Your task to perform on an android device: Check out the best rated electric trimmers on Lowe's Image 0: 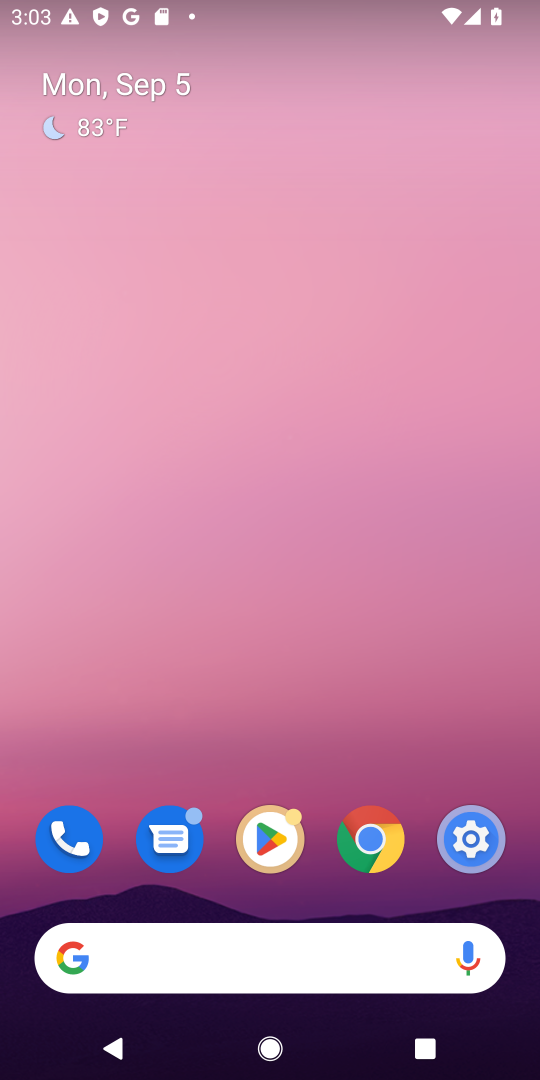
Step 0: click (340, 954)
Your task to perform on an android device: Check out the best rated electric trimmers on Lowe's Image 1: 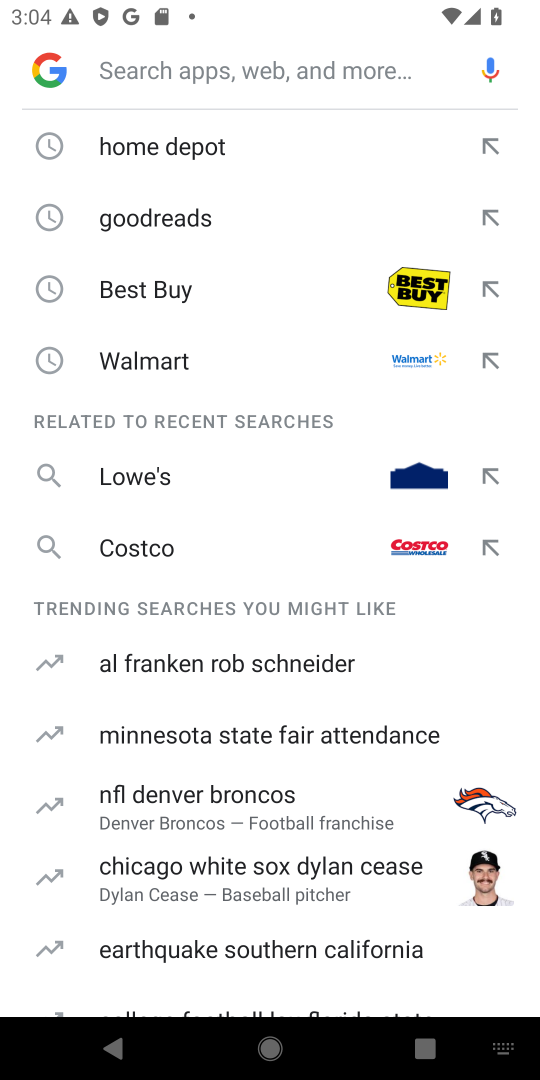
Step 1: type "loew's"
Your task to perform on an android device: Check out the best rated electric trimmers on Lowe's Image 2: 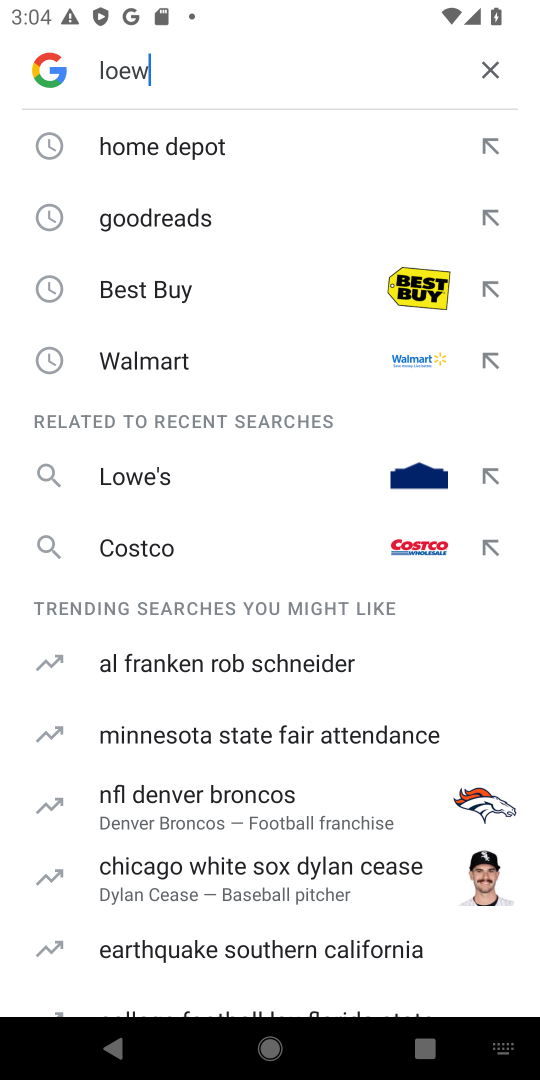
Step 2: type ""
Your task to perform on an android device: Check out the best rated electric trimmers on Lowe's Image 3: 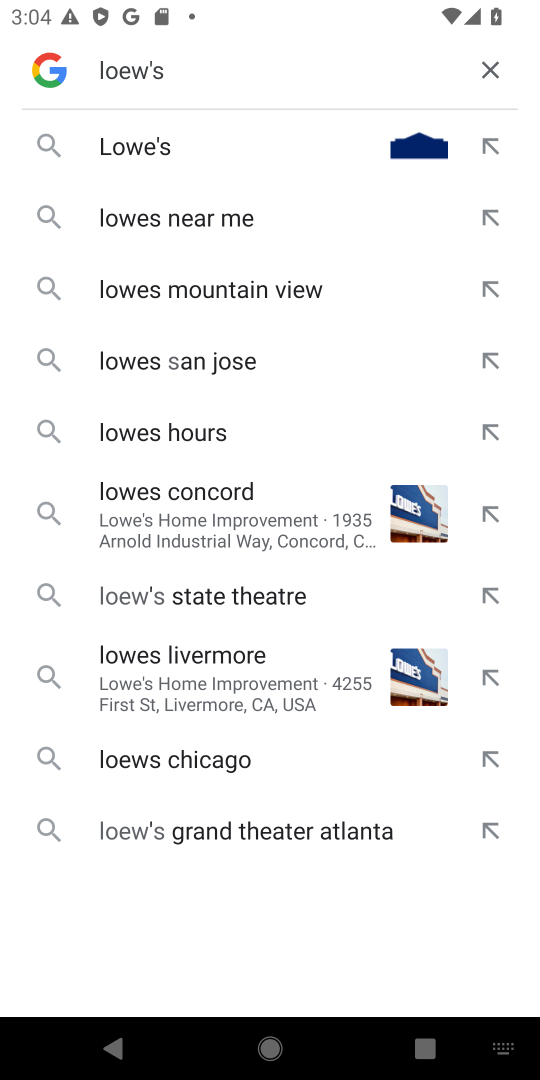
Step 3: press enter
Your task to perform on an android device: Check out the best rated electric trimmers on Lowe's Image 4: 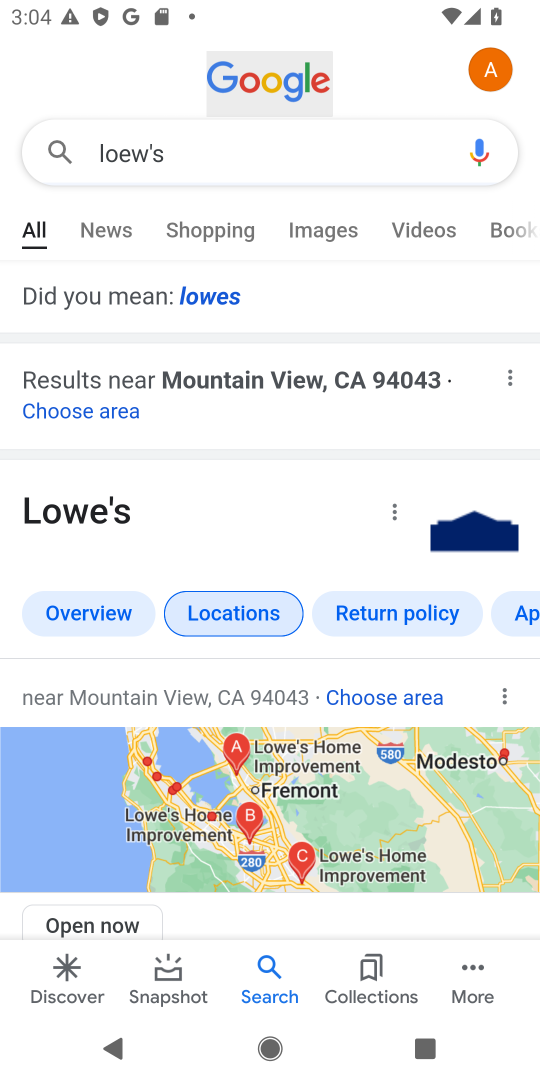
Step 4: drag from (157, 540) to (287, 121)
Your task to perform on an android device: Check out the best rated electric trimmers on Lowe's Image 5: 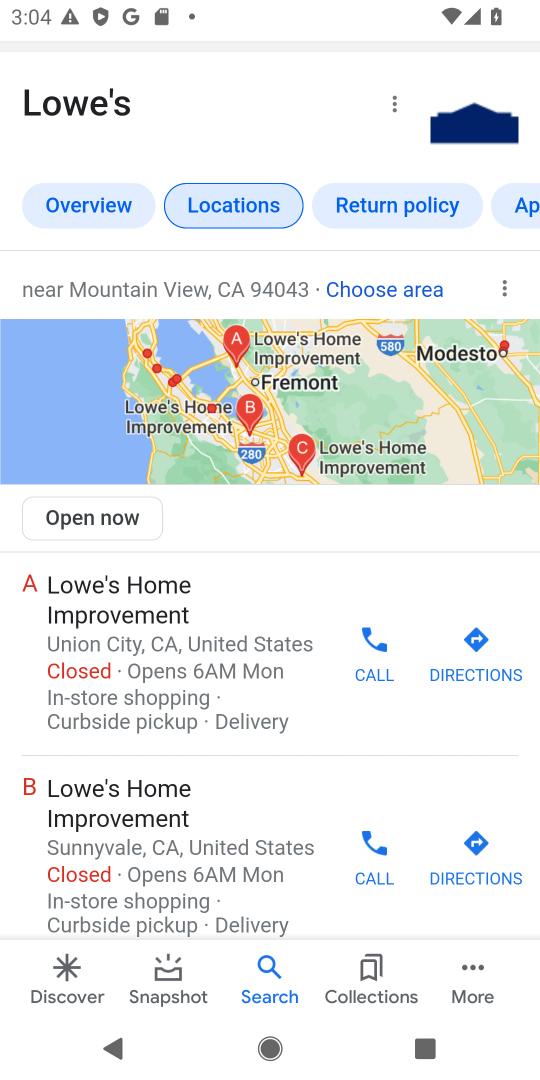
Step 5: drag from (45, 544) to (207, 55)
Your task to perform on an android device: Check out the best rated electric trimmers on Lowe's Image 6: 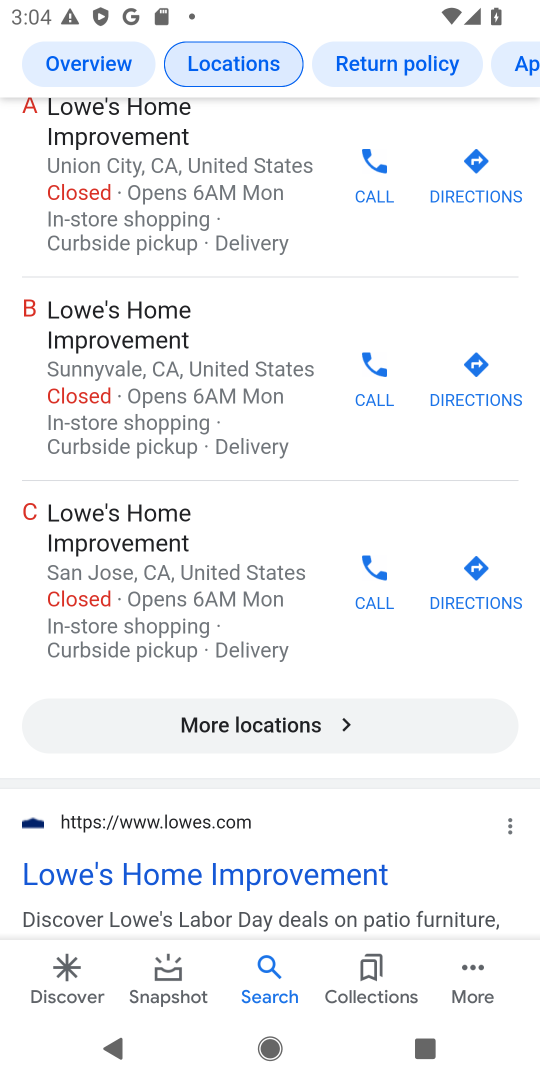
Step 6: click (160, 868)
Your task to perform on an android device: Check out the best rated electric trimmers on Lowe's Image 7: 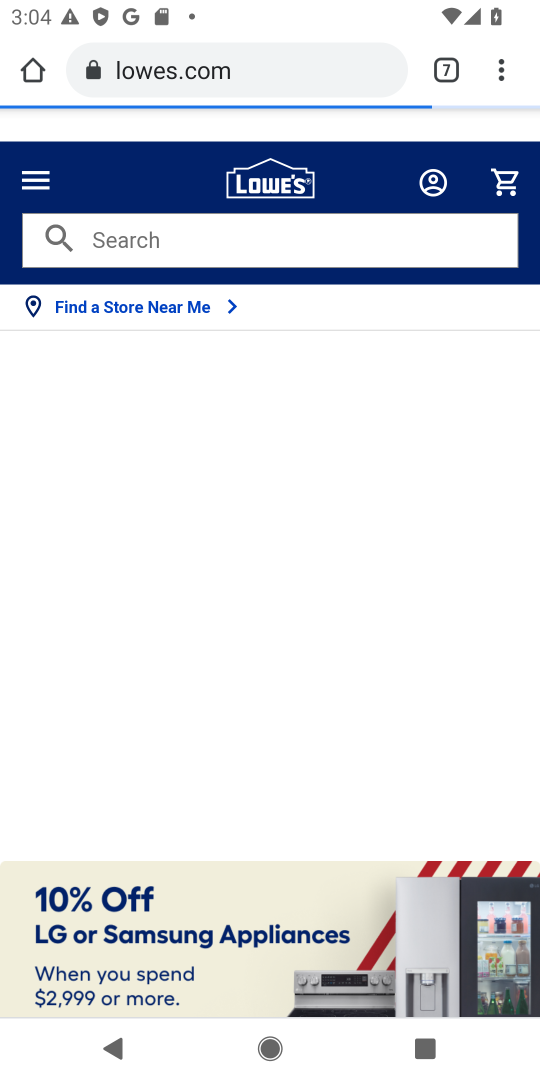
Step 7: click (183, 234)
Your task to perform on an android device: Check out the best rated electric trimmers on Lowe's Image 8: 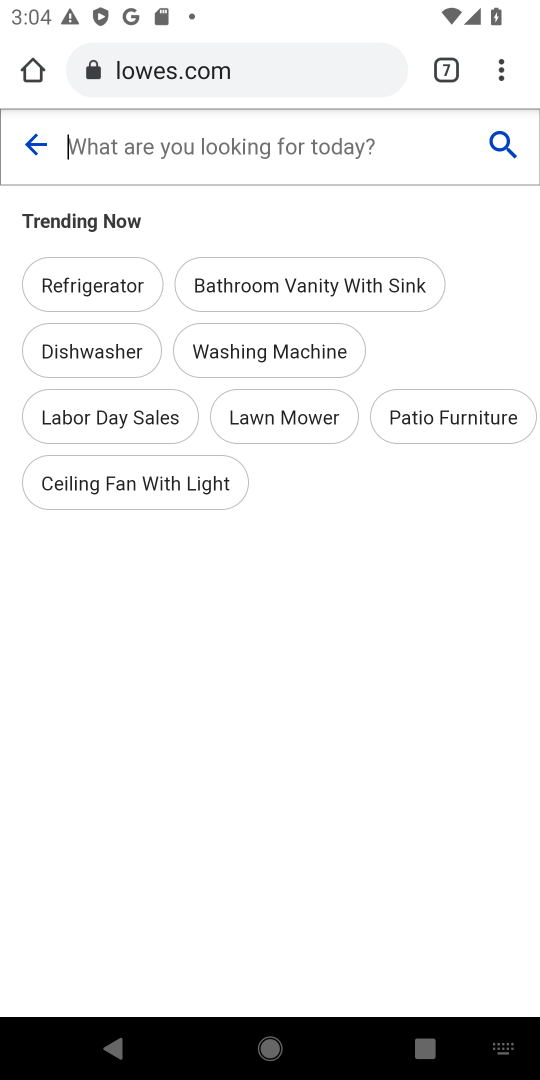
Step 8: type "electric trimmers"
Your task to perform on an android device: Check out the best rated electric trimmers on Lowe's Image 9: 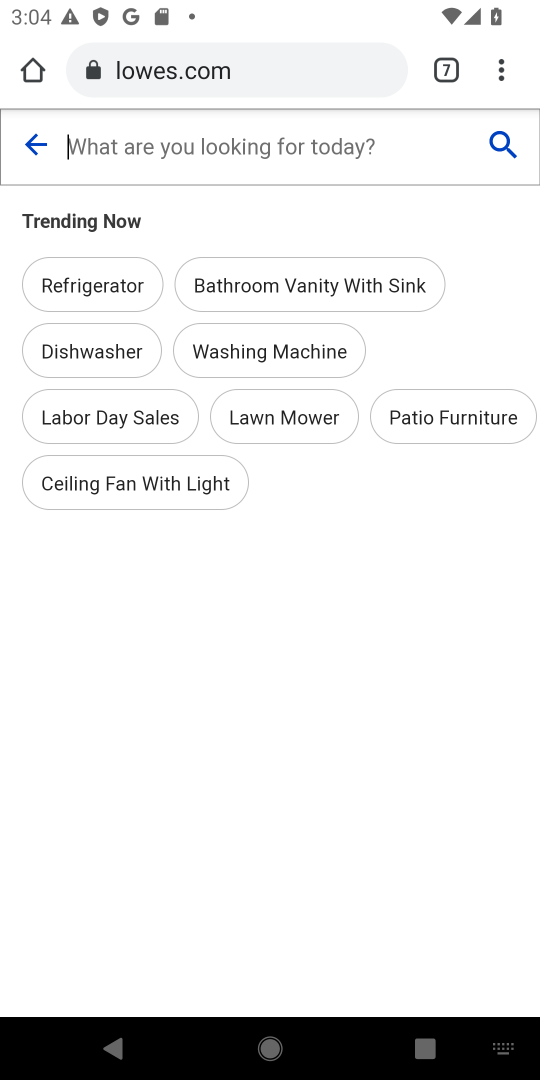
Step 9: type ""
Your task to perform on an android device: Check out the best rated electric trimmers on Lowe's Image 10: 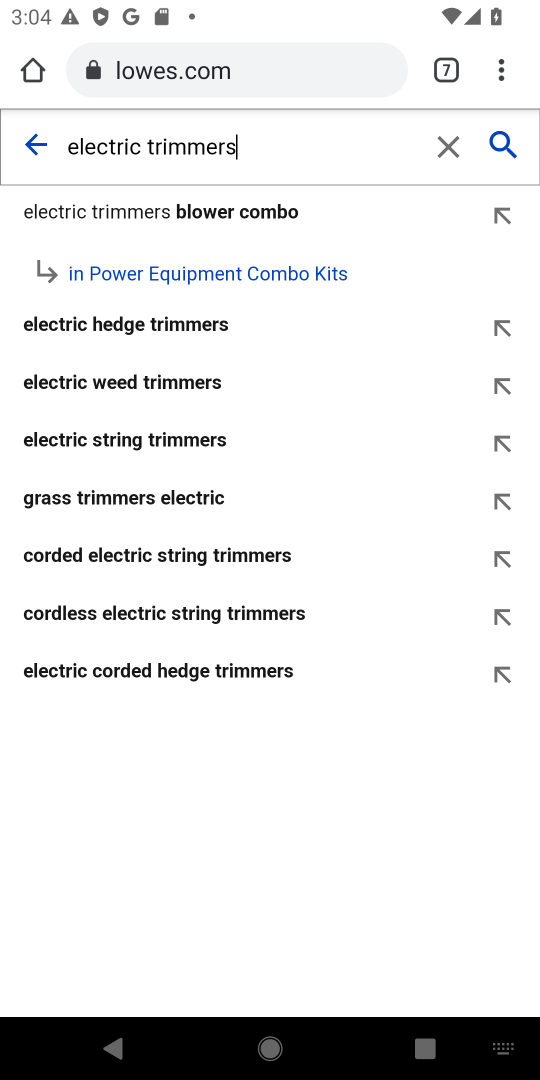
Step 10: press enter
Your task to perform on an android device: Check out the best rated electric trimmers on Lowe's Image 11: 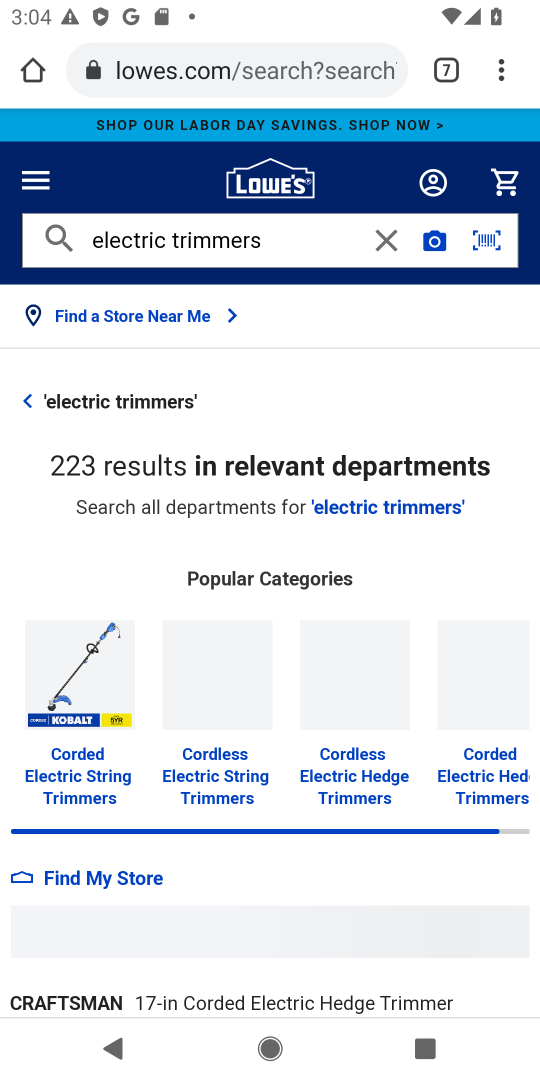
Step 11: drag from (296, 405) to (362, 81)
Your task to perform on an android device: Check out the best rated electric trimmers on Lowe's Image 12: 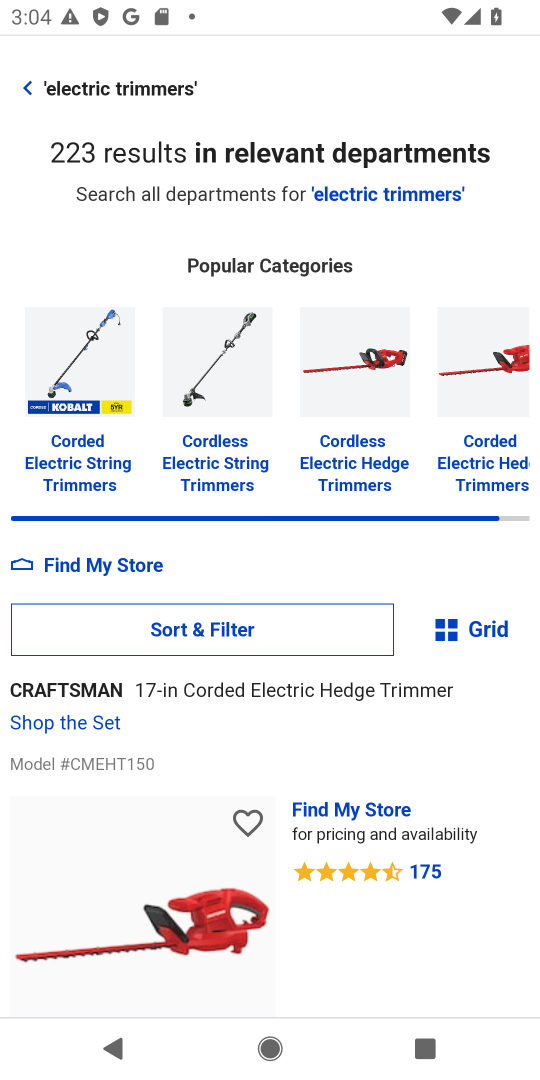
Step 12: click (222, 632)
Your task to perform on an android device: Check out the best rated electric trimmers on Lowe's Image 13: 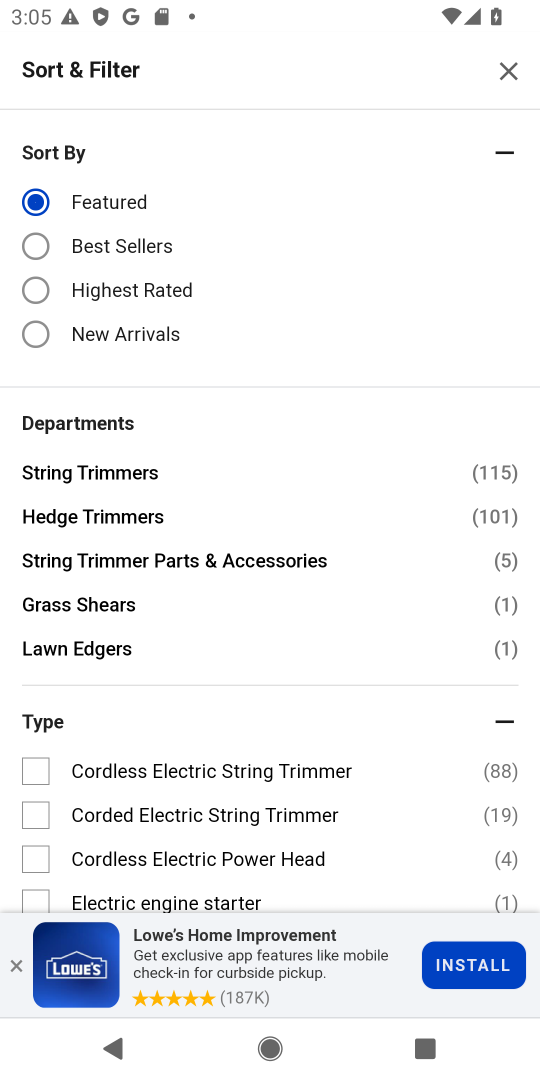
Step 13: click (35, 290)
Your task to perform on an android device: Check out the best rated electric trimmers on Lowe's Image 14: 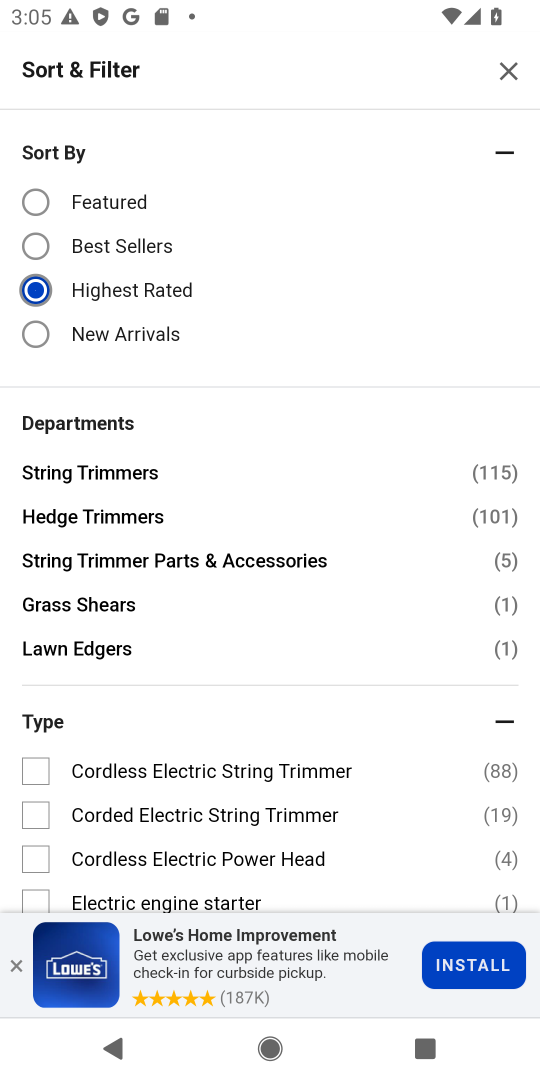
Step 14: drag from (348, 415) to (371, 304)
Your task to perform on an android device: Check out the best rated electric trimmers on Lowe's Image 15: 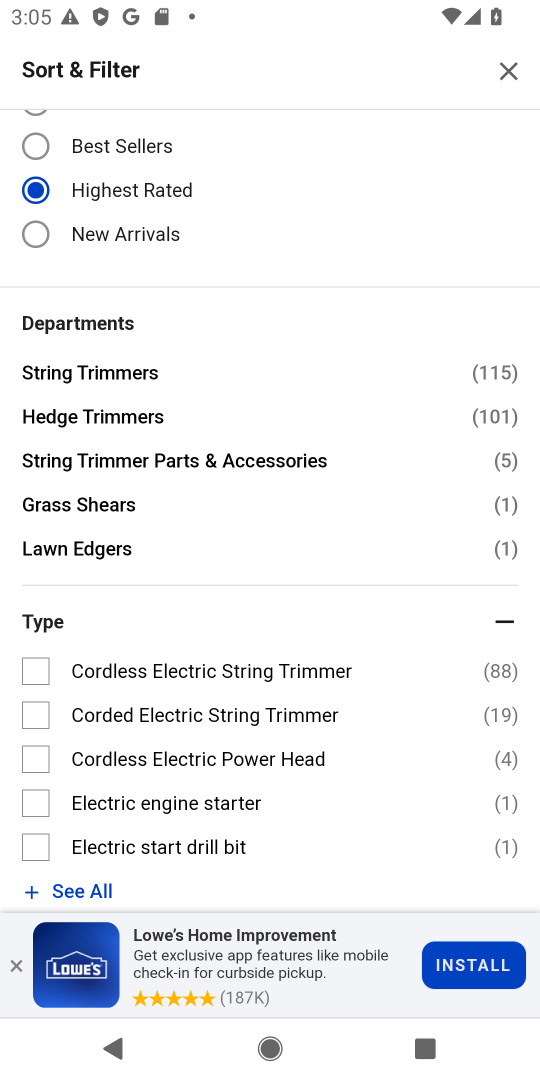
Step 15: click (519, 75)
Your task to perform on an android device: Check out the best rated electric trimmers on Lowe's Image 16: 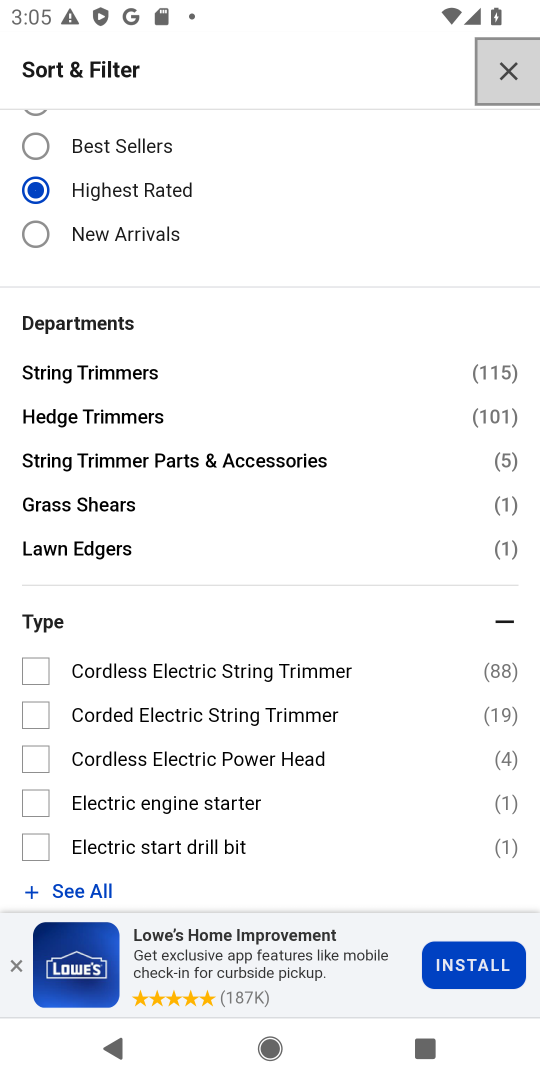
Step 16: click (503, 73)
Your task to perform on an android device: Check out the best rated electric trimmers on Lowe's Image 17: 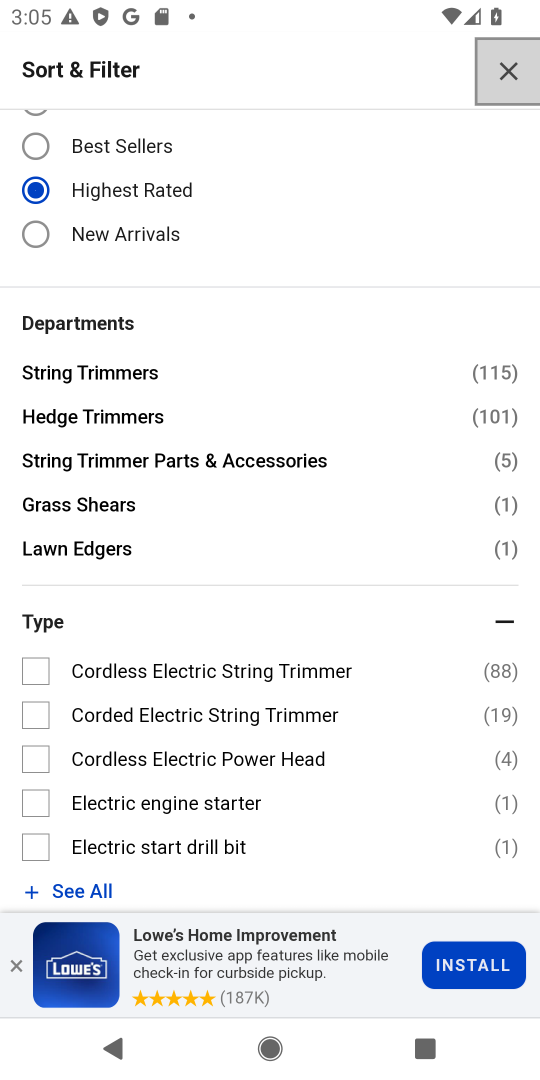
Step 17: drag from (388, 218) to (313, 819)
Your task to perform on an android device: Check out the best rated electric trimmers on Lowe's Image 18: 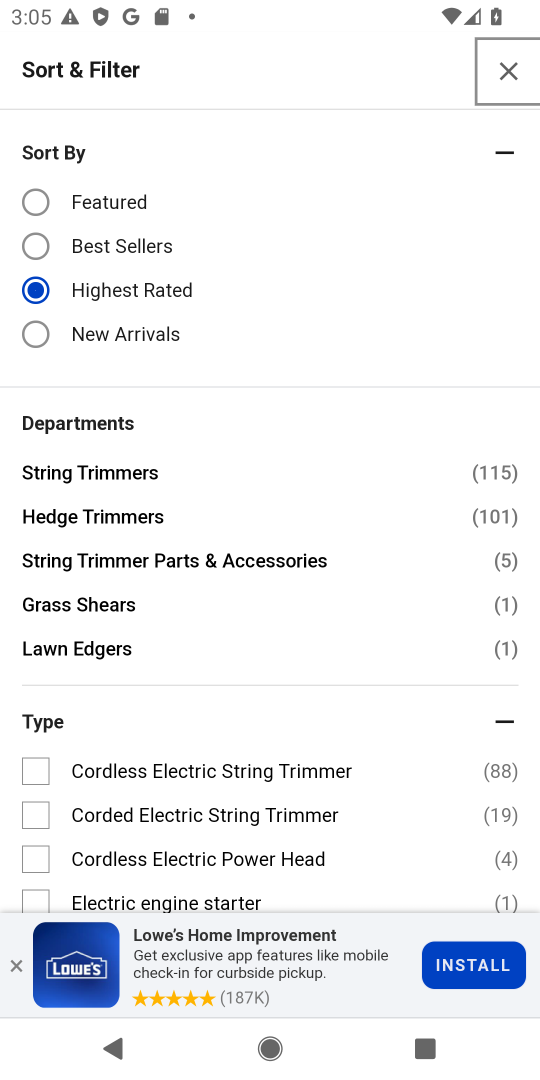
Step 18: click (501, 72)
Your task to perform on an android device: Check out the best rated electric trimmers on Lowe's Image 19: 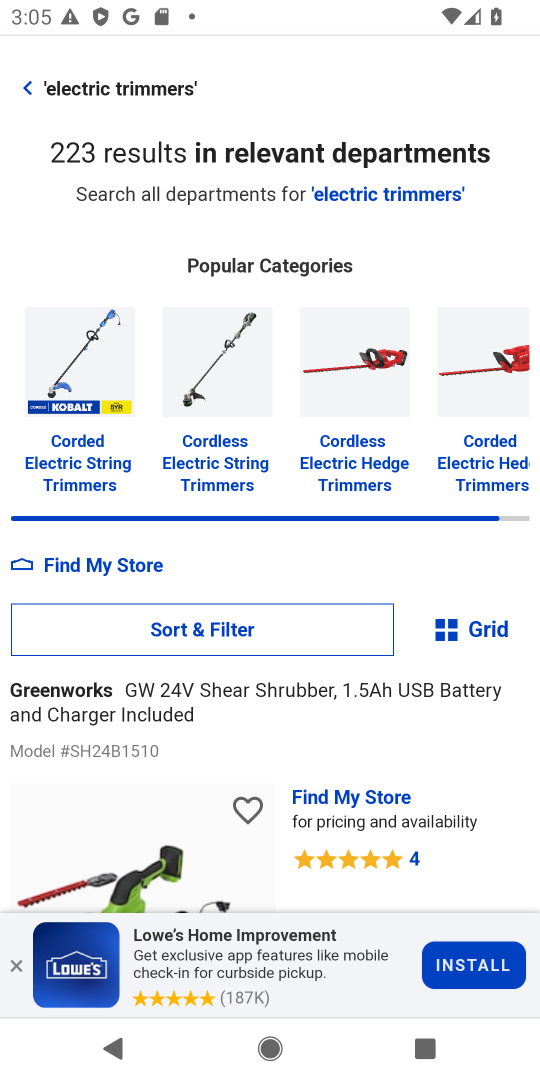
Step 19: task complete